Your task to perform on an android device: Search for pizza restaurants on Maps Image 0: 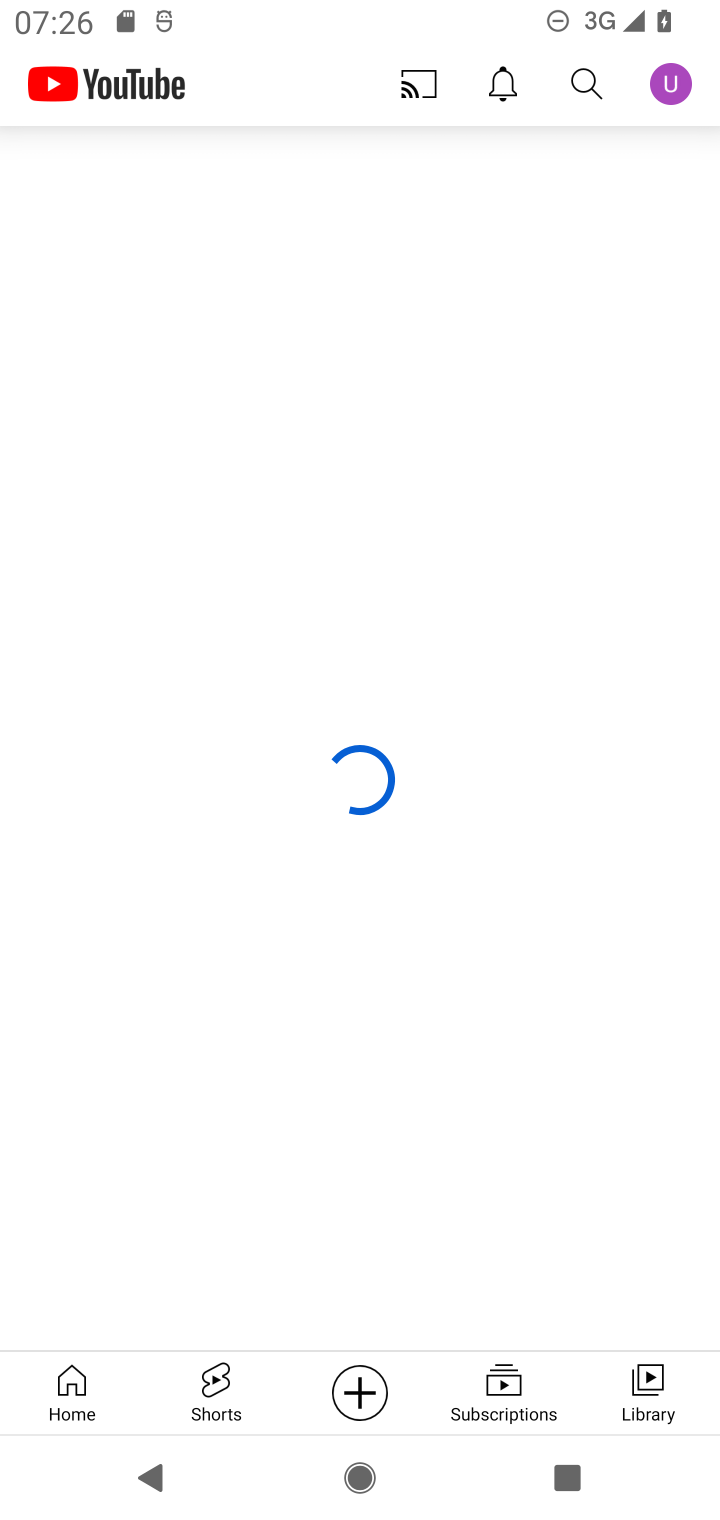
Step 0: press home button
Your task to perform on an android device: Search for pizza restaurants on Maps Image 1: 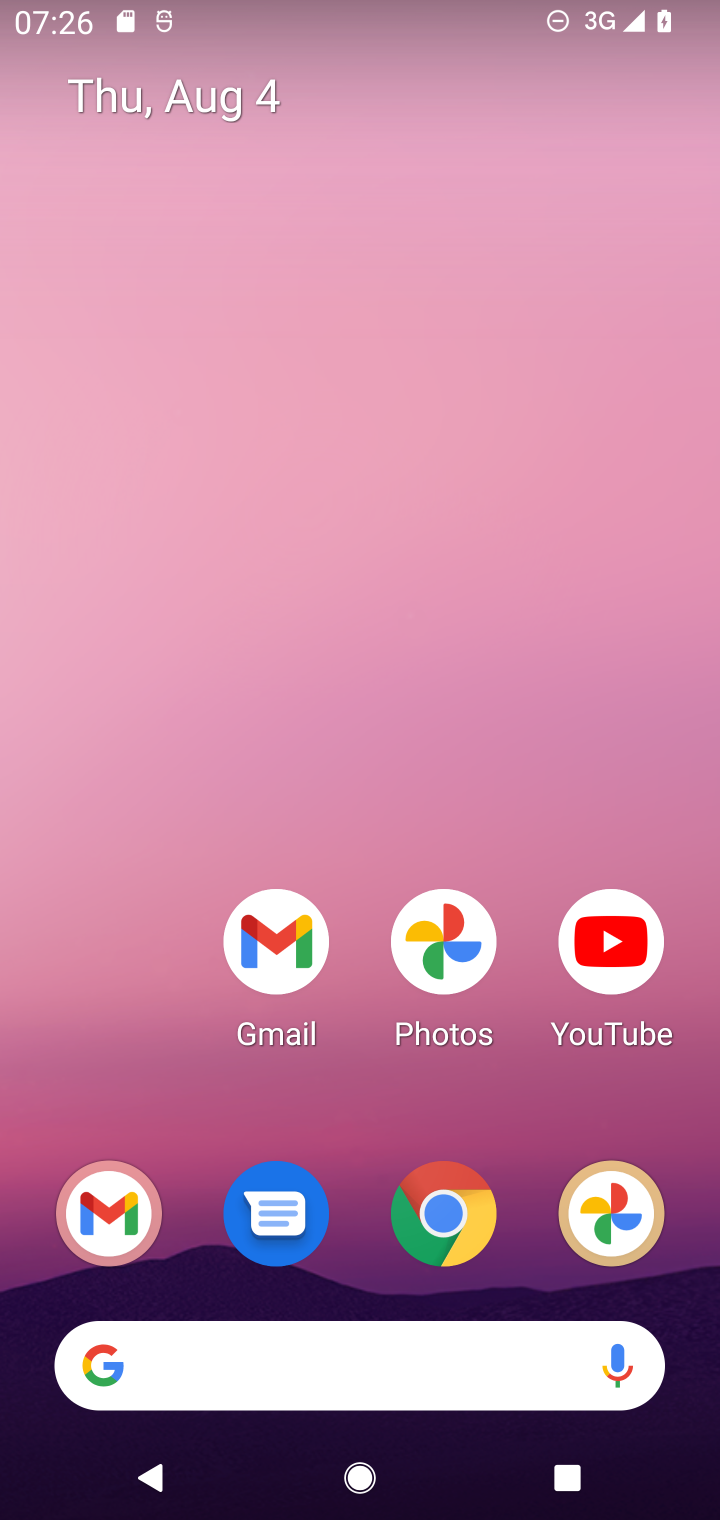
Step 1: press home button
Your task to perform on an android device: Search for pizza restaurants on Maps Image 2: 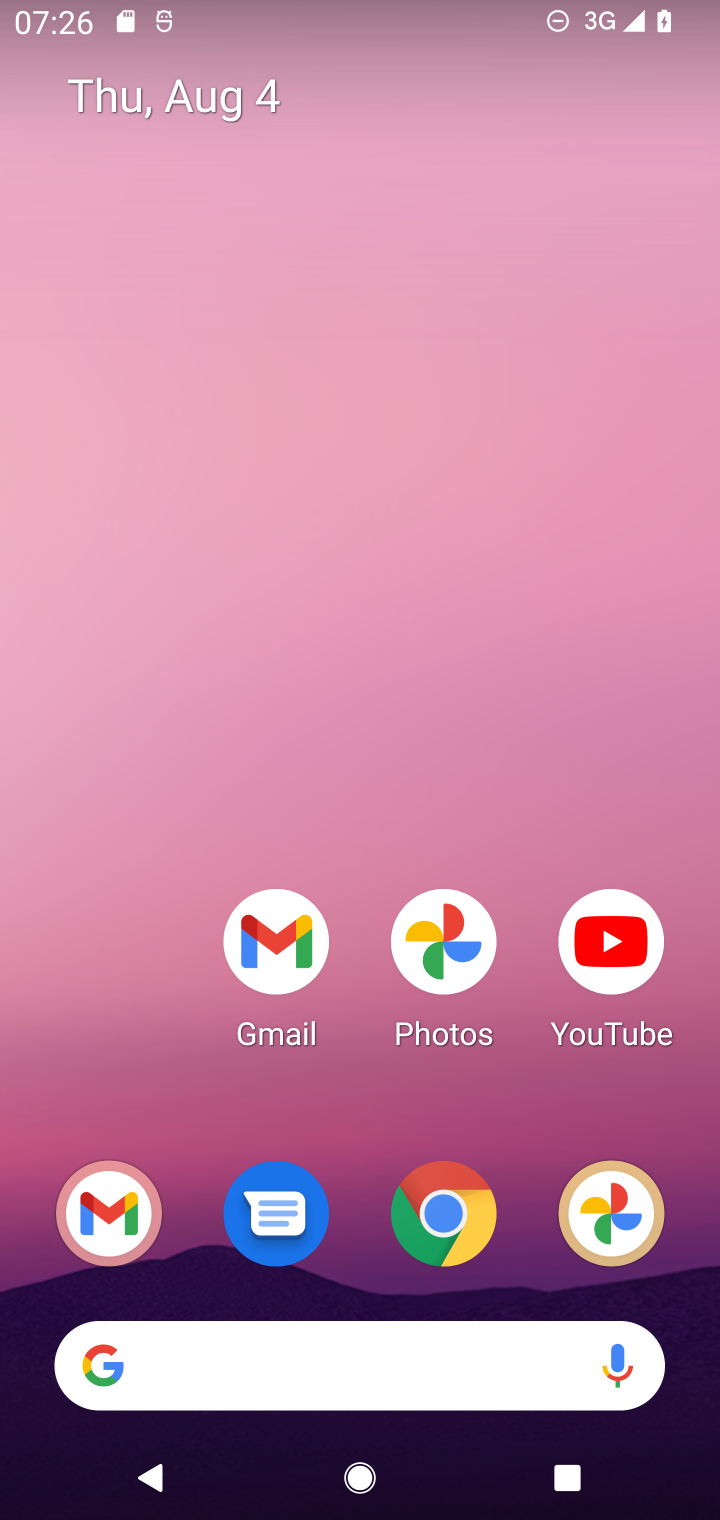
Step 2: drag from (158, 962) to (145, 346)
Your task to perform on an android device: Search for pizza restaurants on Maps Image 3: 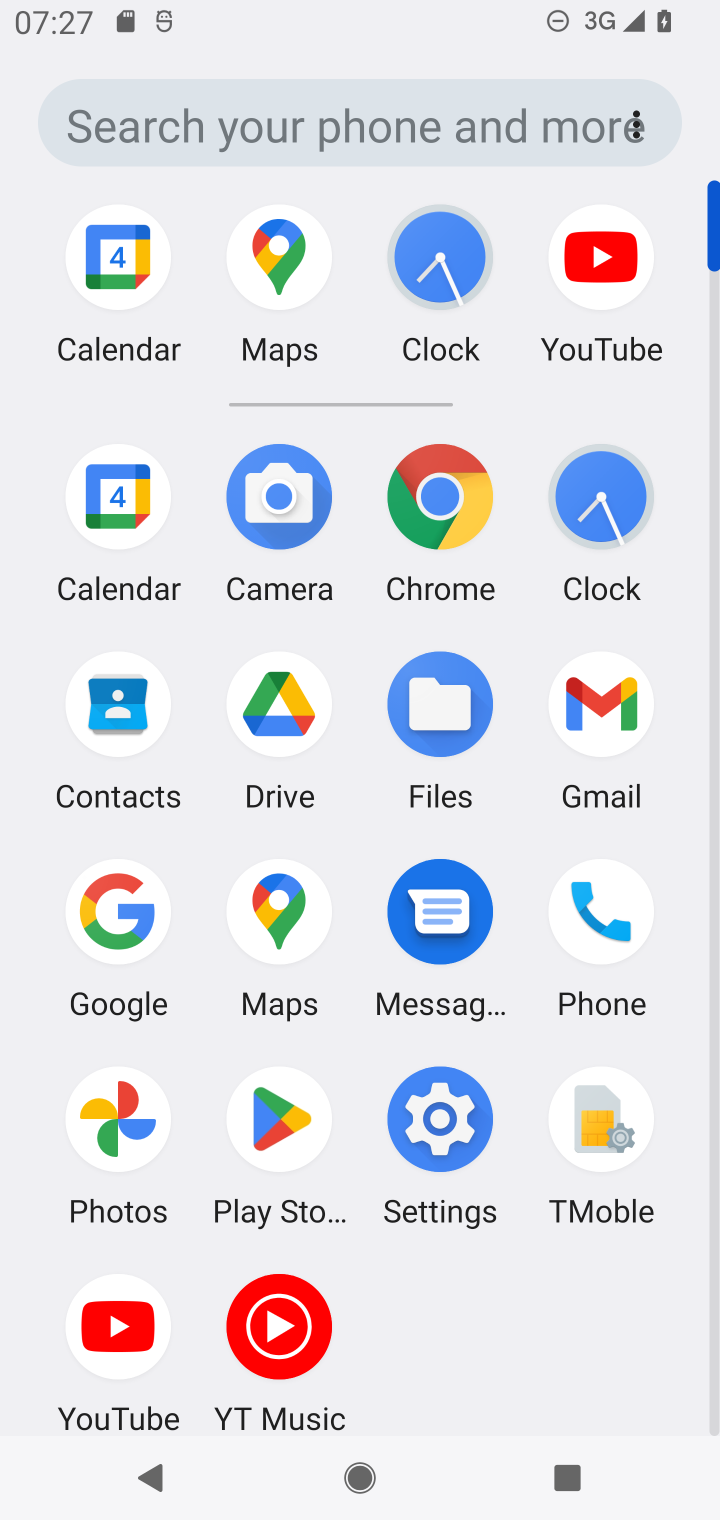
Step 3: click (284, 919)
Your task to perform on an android device: Search for pizza restaurants on Maps Image 4: 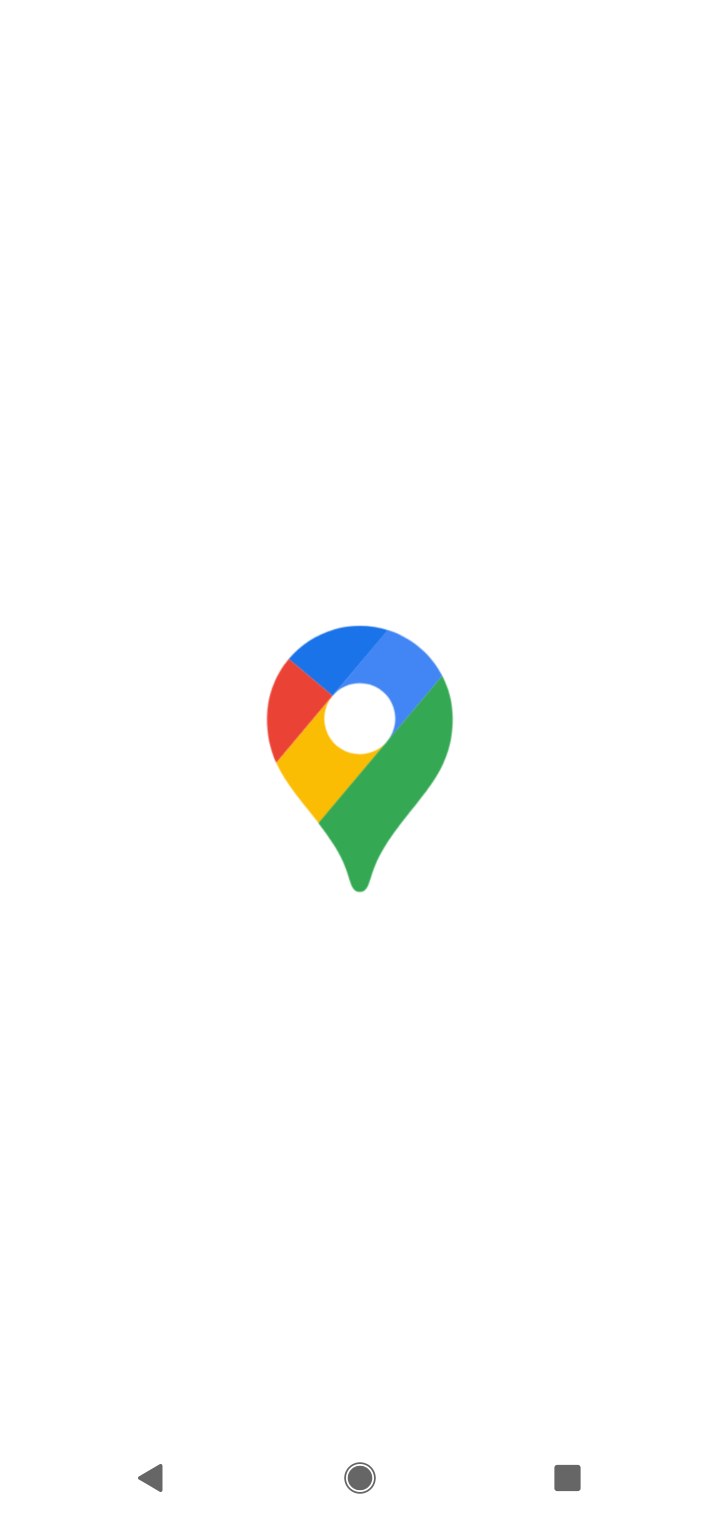
Step 4: task complete